Your task to perform on an android device: Open settings Image 0: 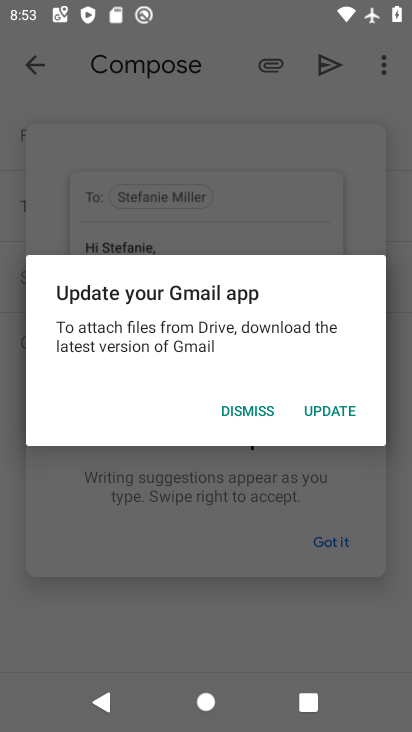
Step 0: press home button
Your task to perform on an android device: Open settings Image 1: 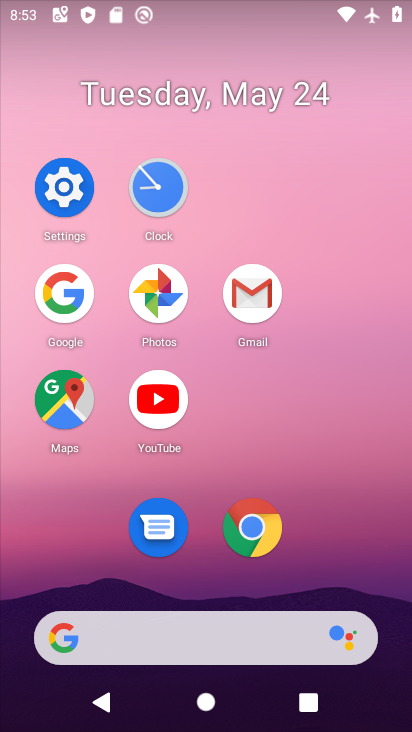
Step 1: click (81, 196)
Your task to perform on an android device: Open settings Image 2: 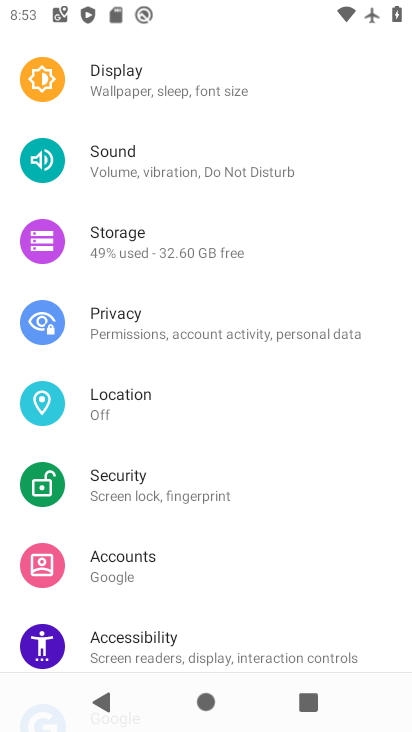
Step 2: task complete